Your task to perform on an android device: Open CNN.com Image 0: 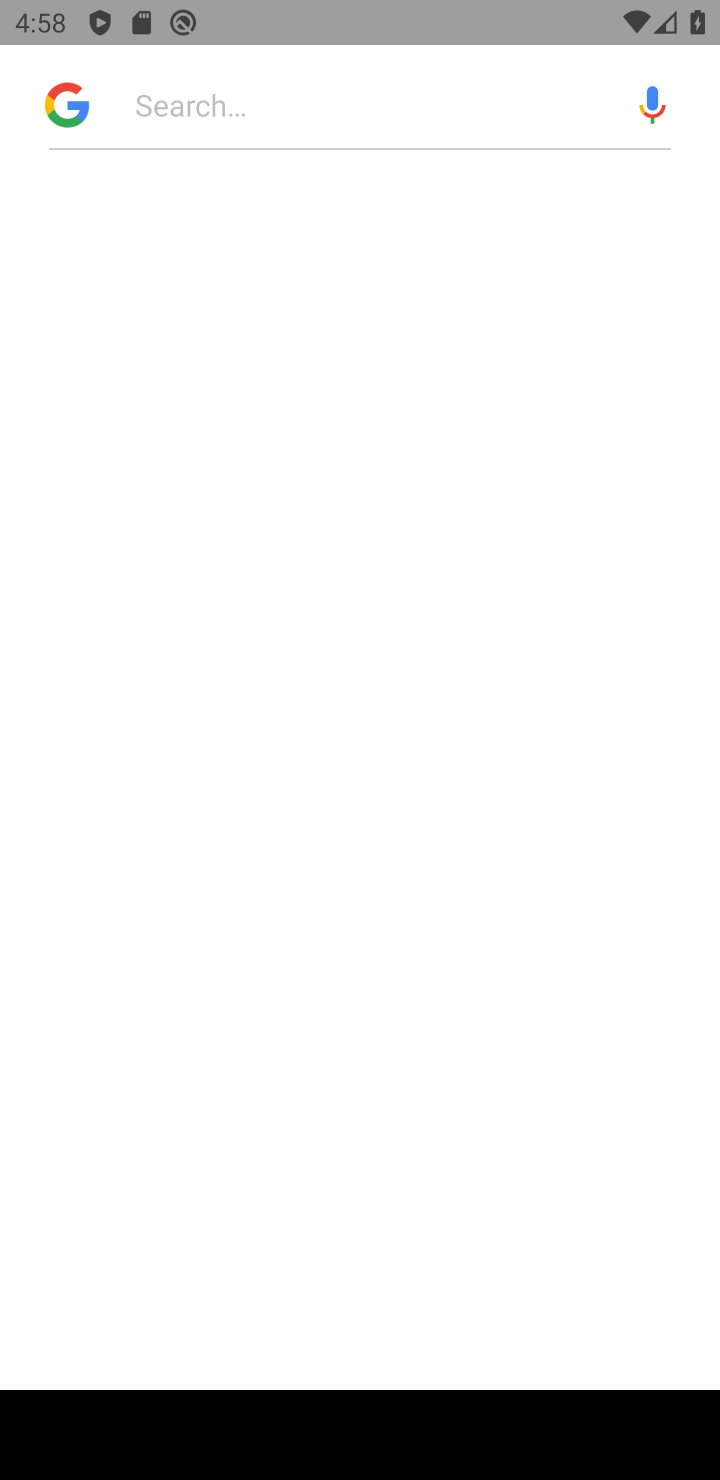
Step 0: press home button
Your task to perform on an android device: Open CNN.com Image 1: 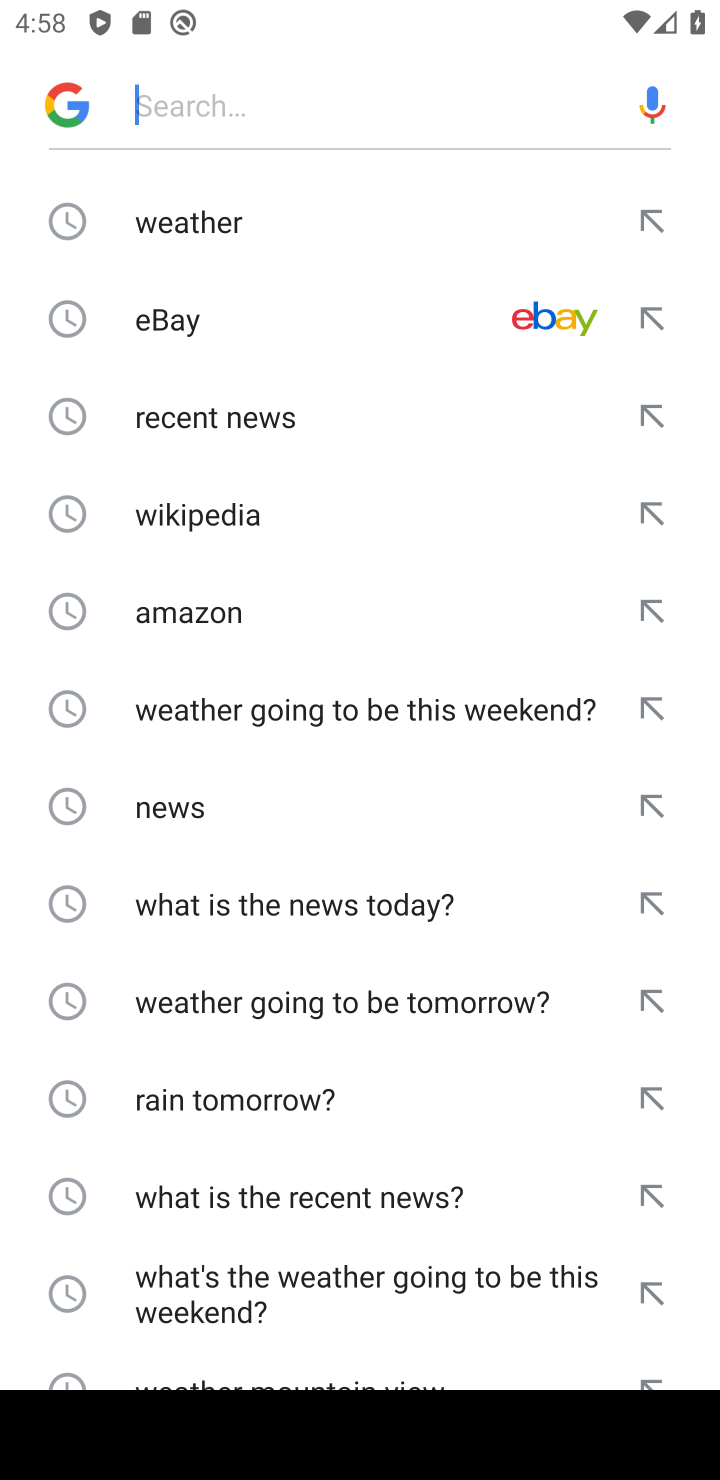
Step 1: press home button
Your task to perform on an android device: Open CNN.com Image 2: 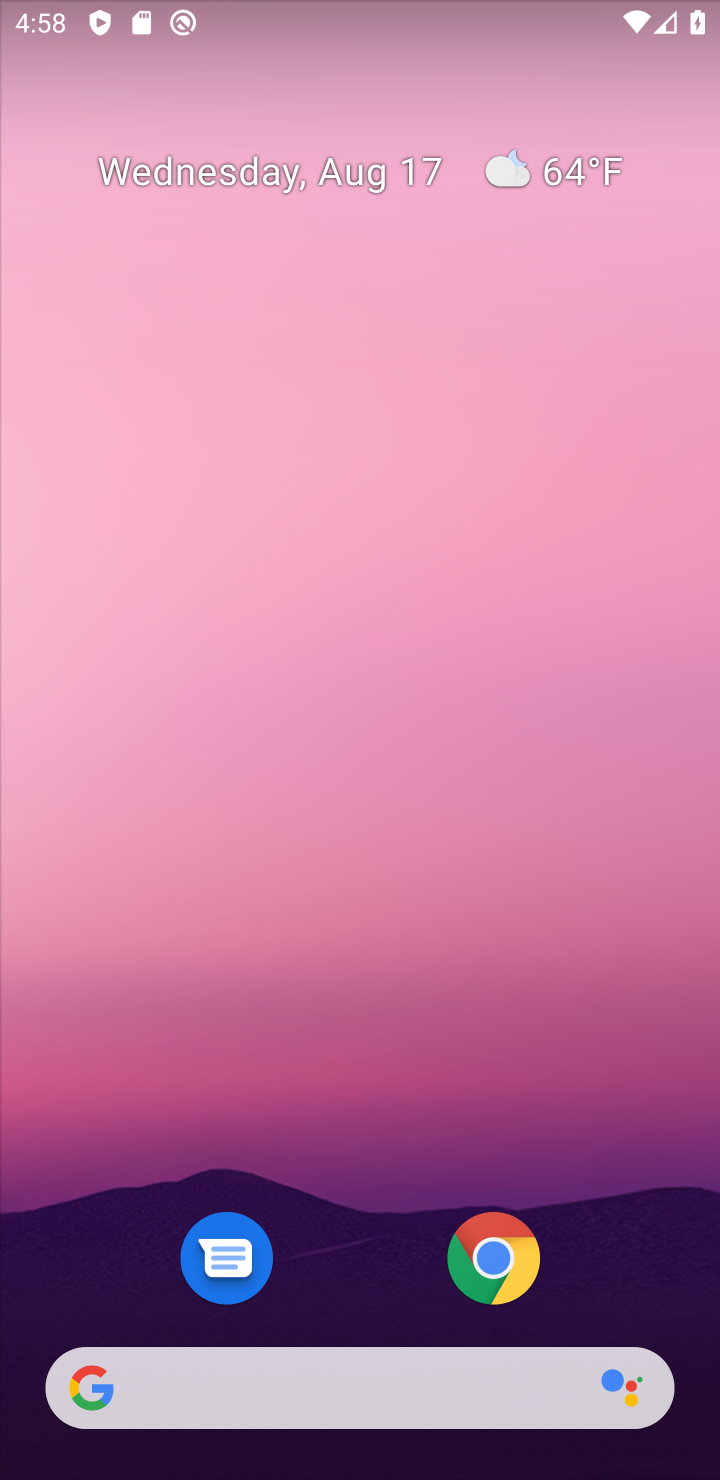
Step 2: click (457, 273)
Your task to perform on an android device: Open CNN.com Image 3: 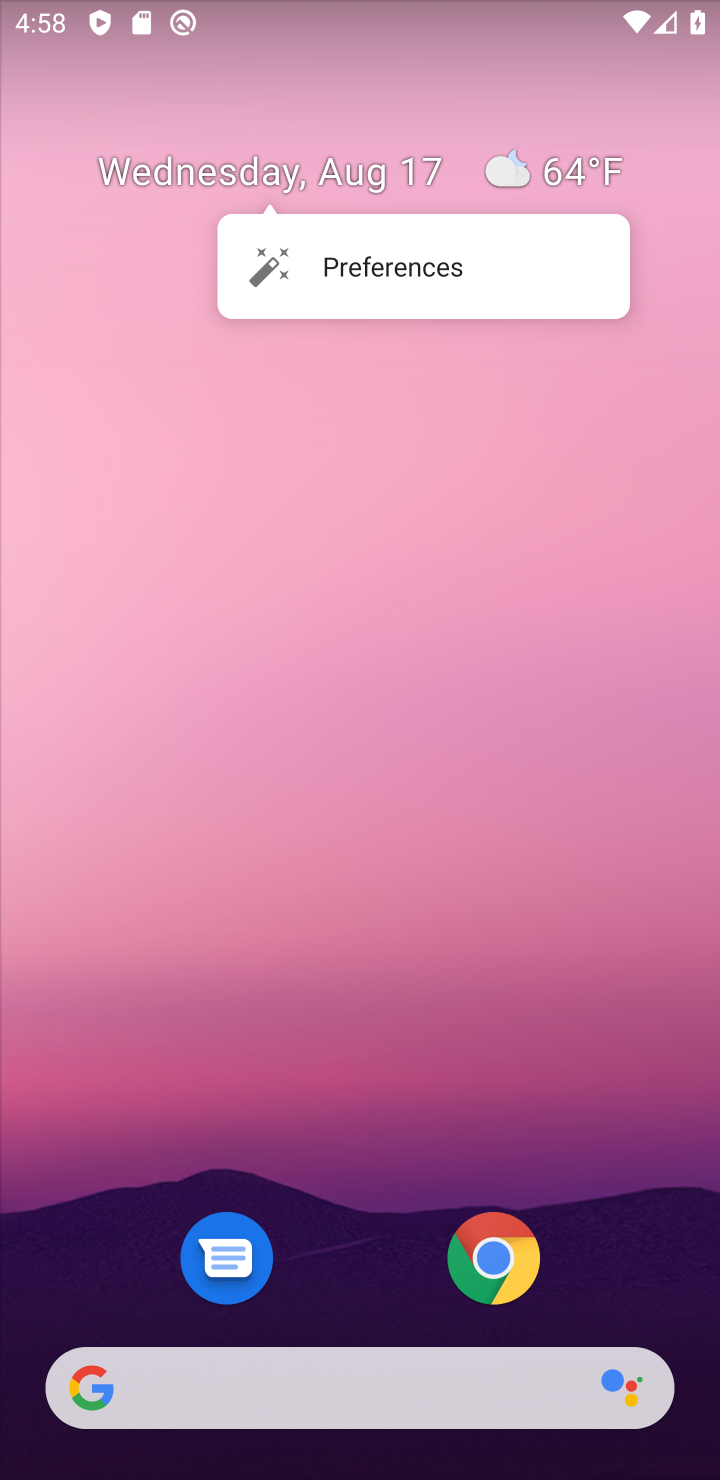
Step 3: click (488, 1264)
Your task to perform on an android device: Open CNN.com Image 4: 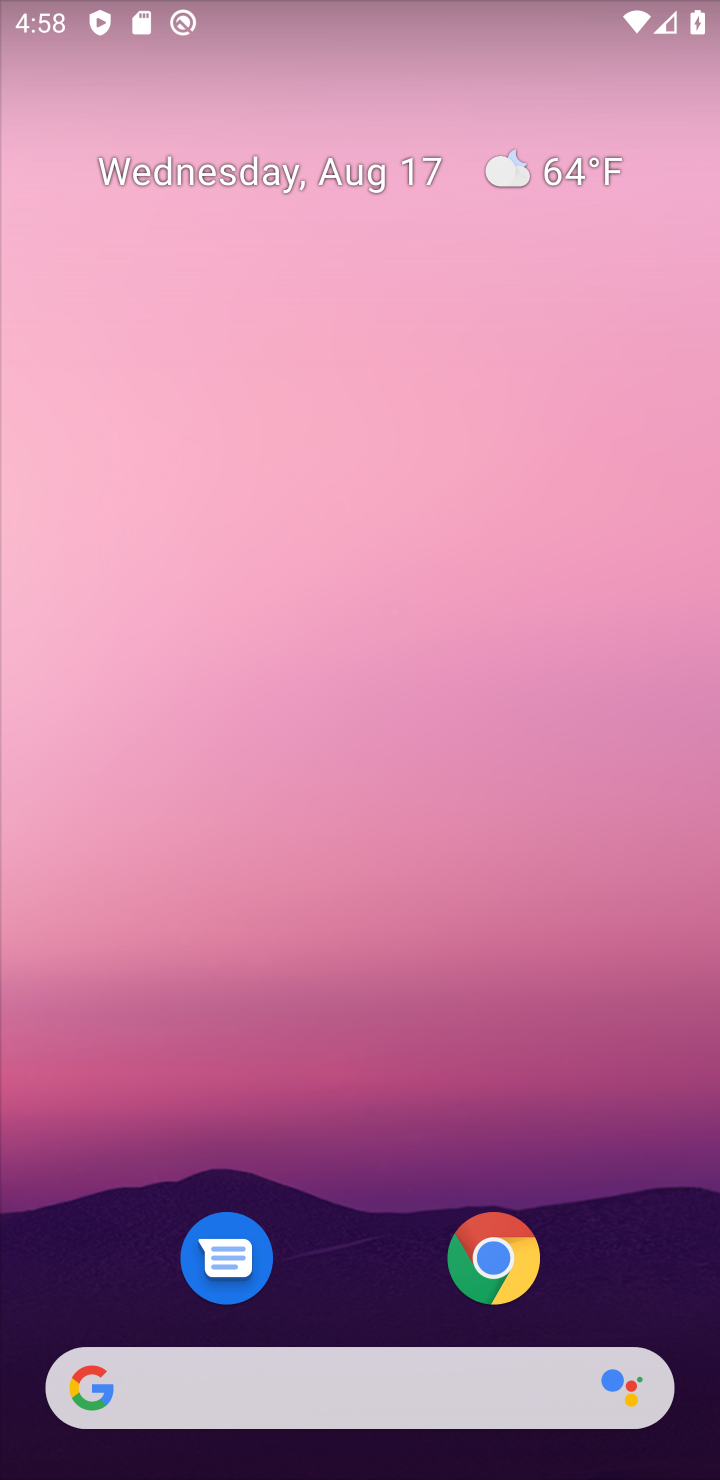
Step 4: click (489, 1264)
Your task to perform on an android device: Open CNN.com Image 5: 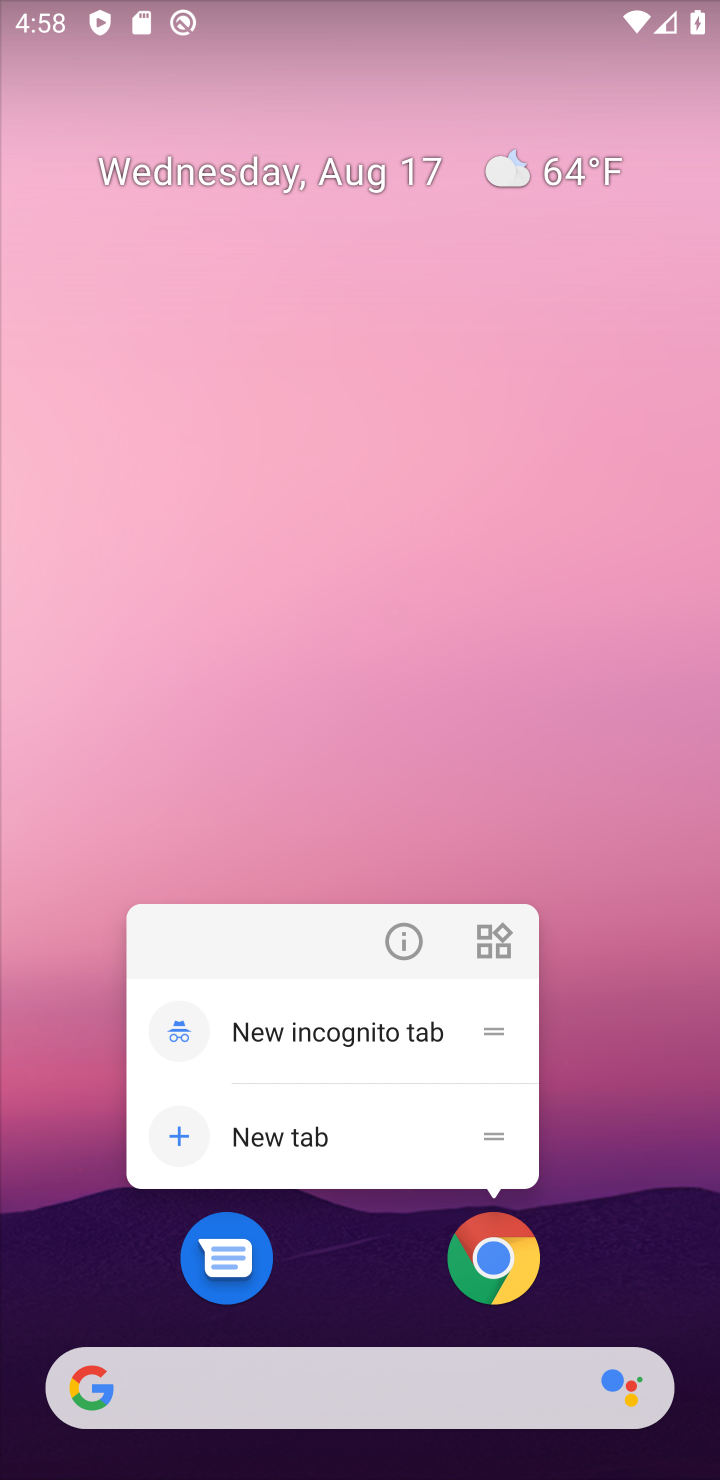
Step 5: click (517, 1228)
Your task to perform on an android device: Open CNN.com Image 6: 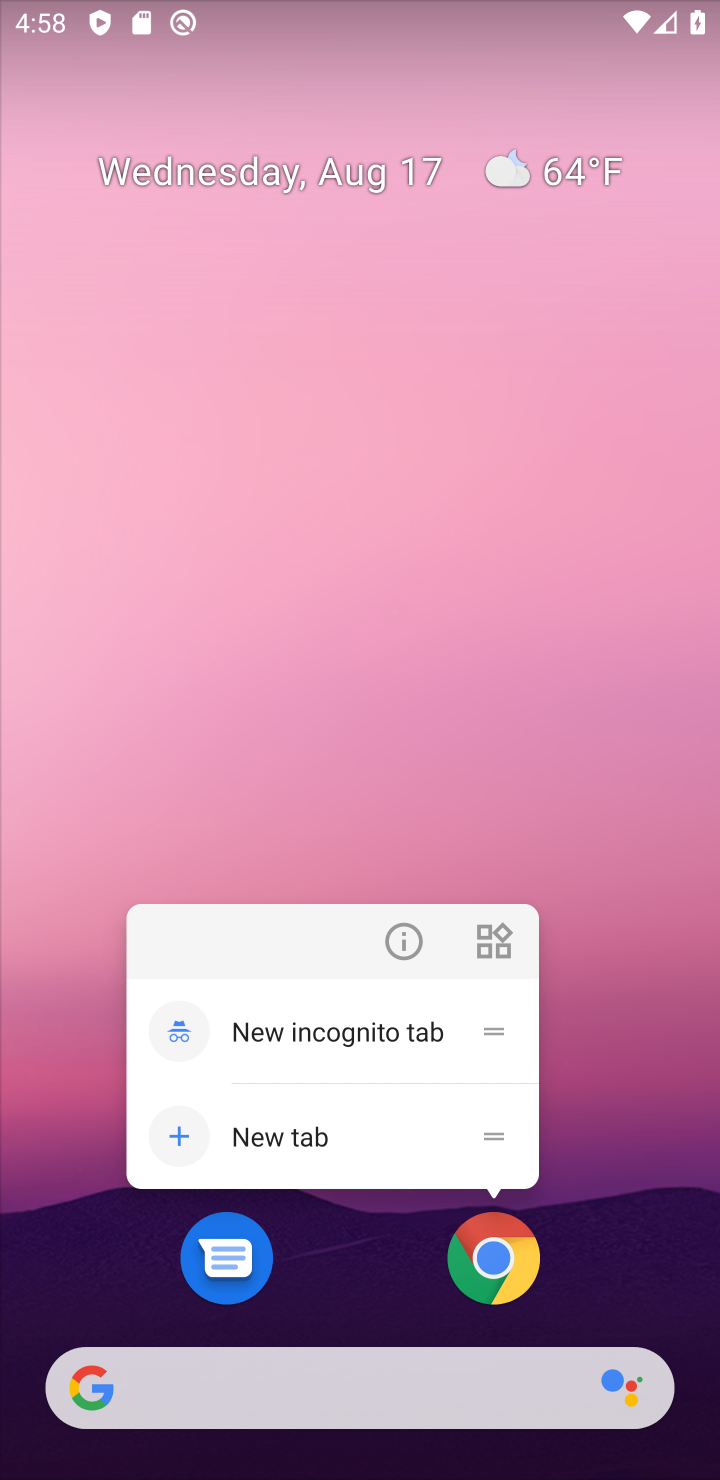
Step 6: click (501, 1257)
Your task to perform on an android device: Open CNN.com Image 7: 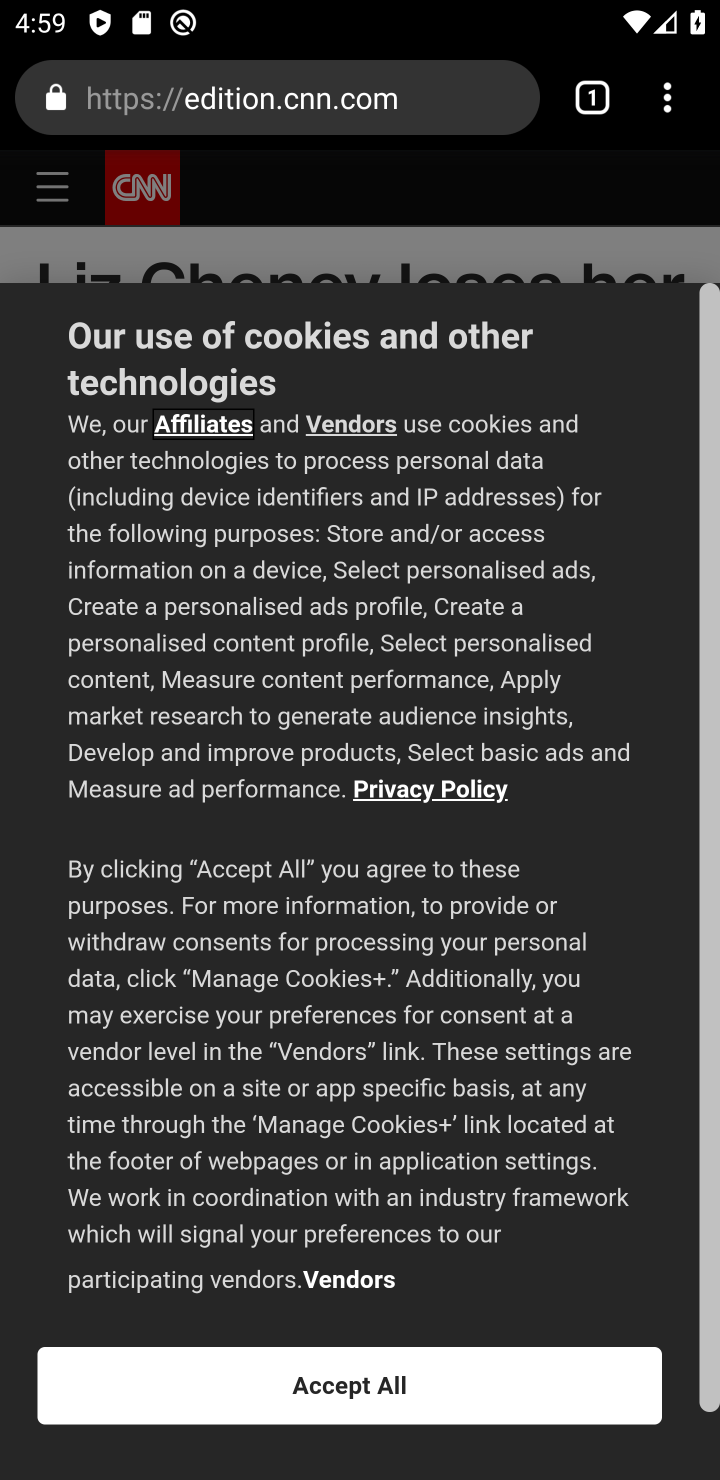
Step 7: task complete